Your task to perform on an android device: Show me the alarms in the clock app Image 0: 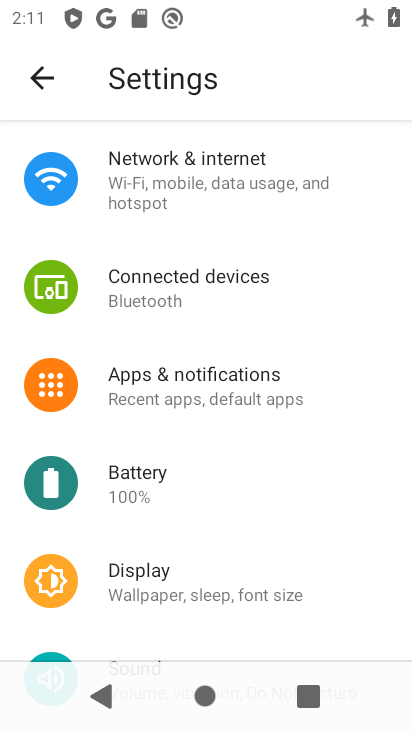
Step 0: press back button
Your task to perform on an android device: Show me the alarms in the clock app Image 1: 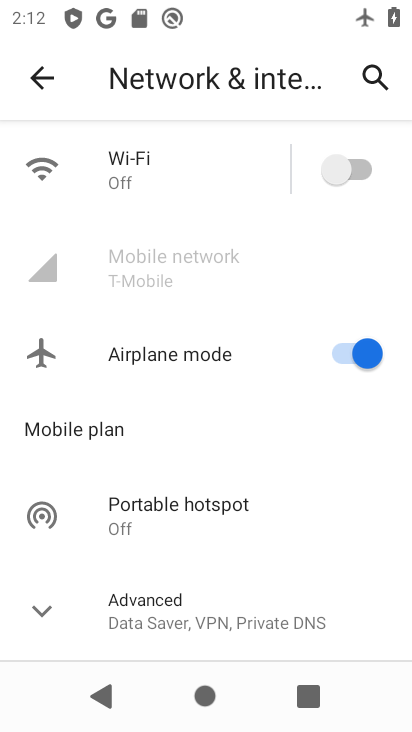
Step 1: press back button
Your task to perform on an android device: Show me the alarms in the clock app Image 2: 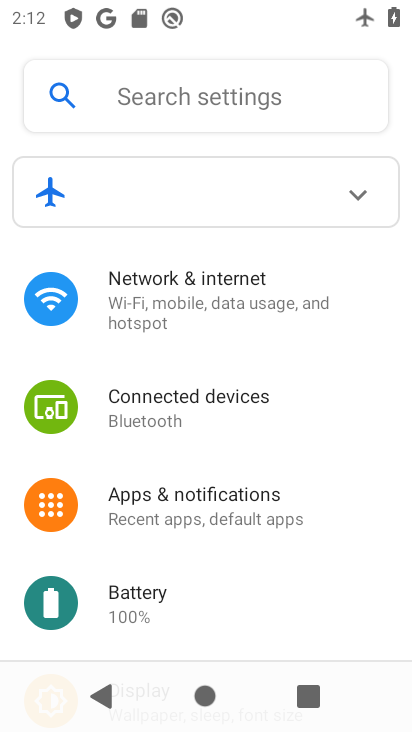
Step 2: press back button
Your task to perform on an android device: Show me the alarms in the clock app Image 3: 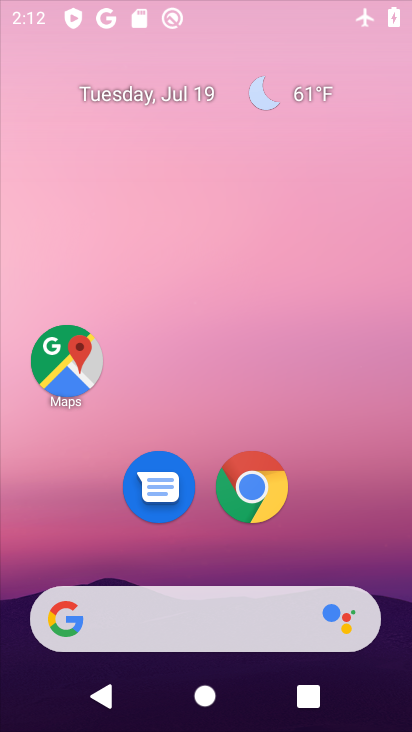
Step 3: drag from (210, 487) to (272, 30)
Your task to perform on an android device: Show me the alarms in the clock app Image 4: 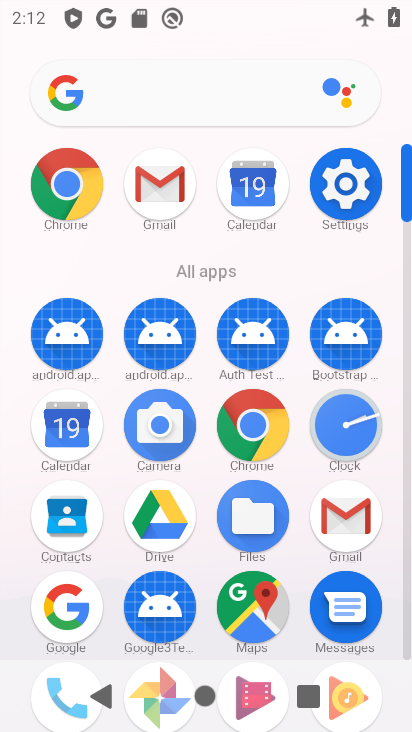
Step 4: click (327, 420)
Your task to perform on an android device: Show me the alarms in the clock app Image 5: 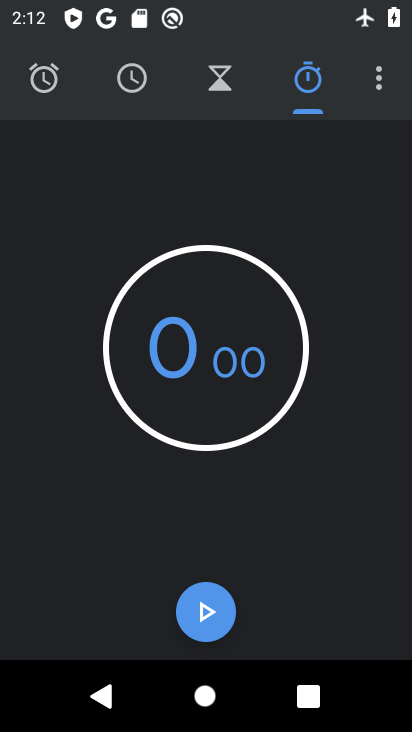
Step 5: click (27, 71)
Your task to perform on an android device: Show me the alarms in the clock app Image 6: 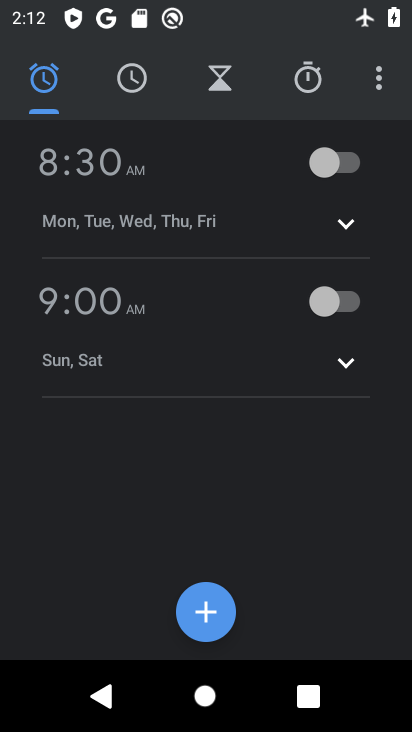
Step 6: task complete